Your task to perform on an android device: empty trash in google photos Image 0: 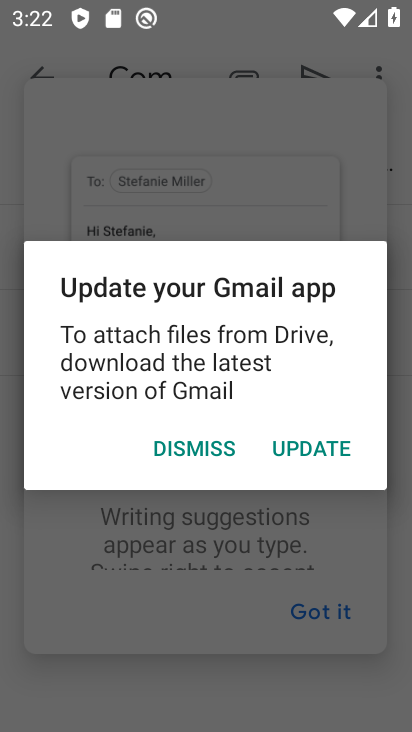
Step 0: press home button
Your task to perform on an android device: empty trash in google photos Image 1: 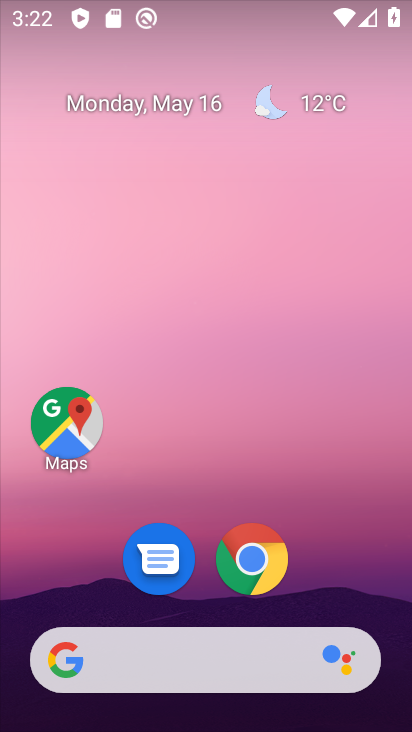
Step 1: drag from (342, 526) to (319, 164)
Your task to perform on an android device: empty trash in google photos Image 2: 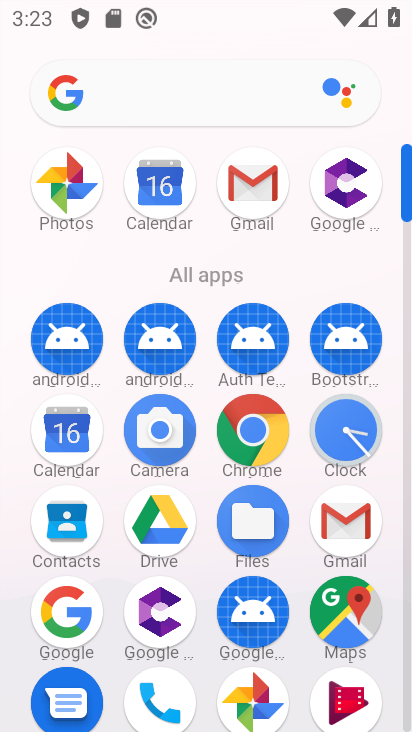
Step 2: click (253, 700)
Your task to perform on an android device: empty trash in google photos Image 3: 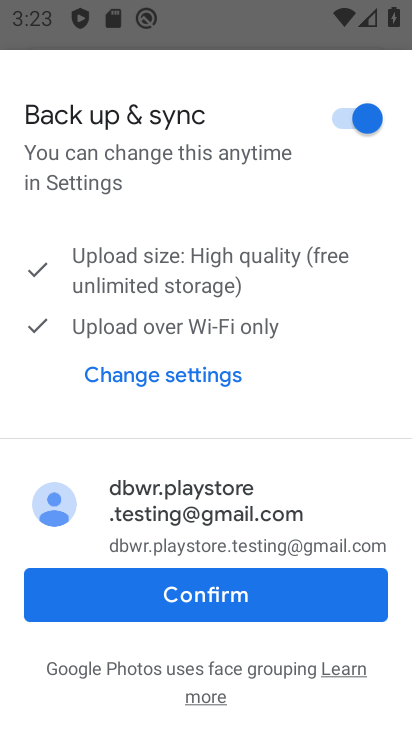
Step 3: click (290, 606)
Your task to perform on an android device: empty trash in google photos Image 4: 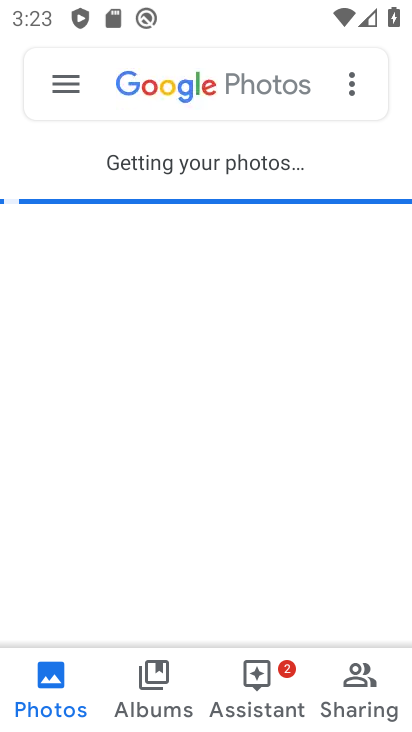
Step 4: click (290, 606)
Your task to perform on an android device: empty trash in google photos Image 5: 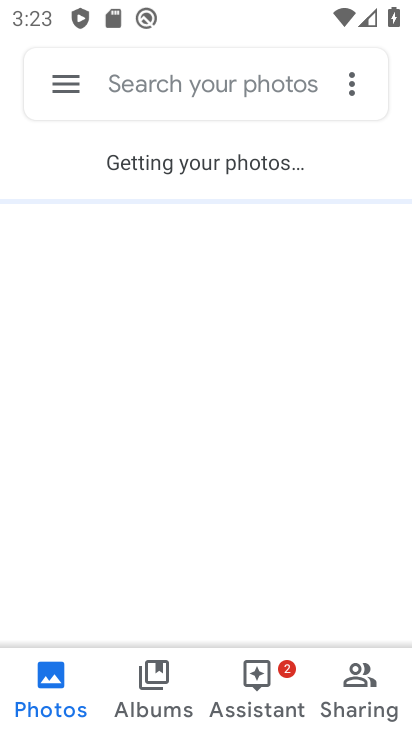
Step 5: click (69, 100)
Your task to perform on an android device: empty trash in google photos Image 6: 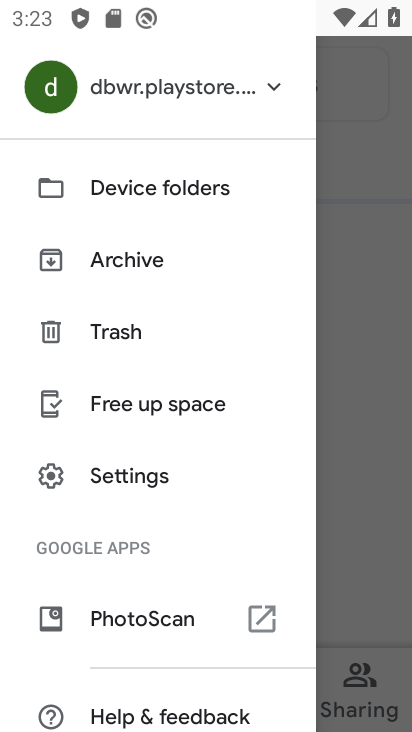
Step 6: click (127, 335)
Your task to perform on an android device: empty trash in google photos Image 7: 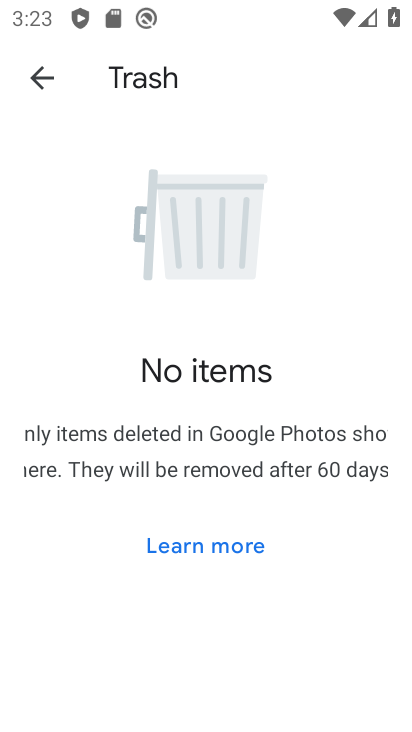
Step 7: task complete